Your task to perform on an android device: Open display settings Image 0: 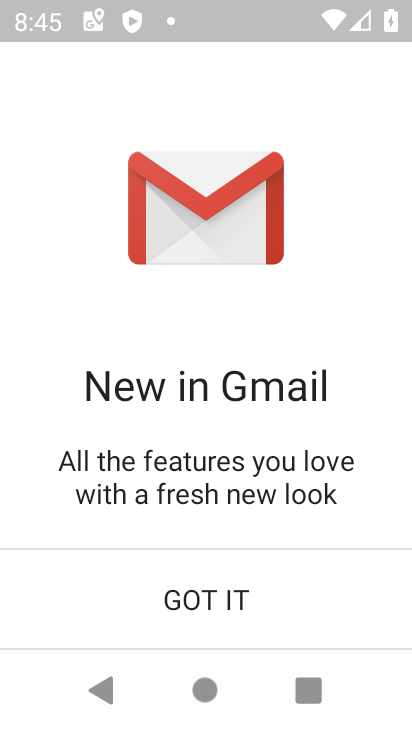
Step 0: click (289, 601)
Your task to perform on an android device: Open display settings Image 1: 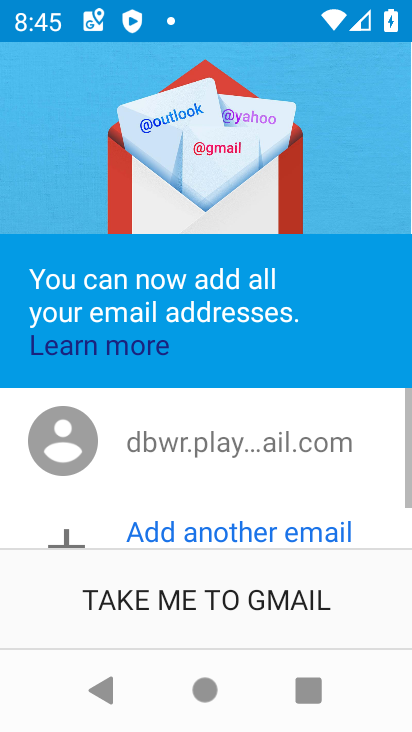
Step 1: click (289, 601)
Your task to perform on an android device: Open display settings Image 2: 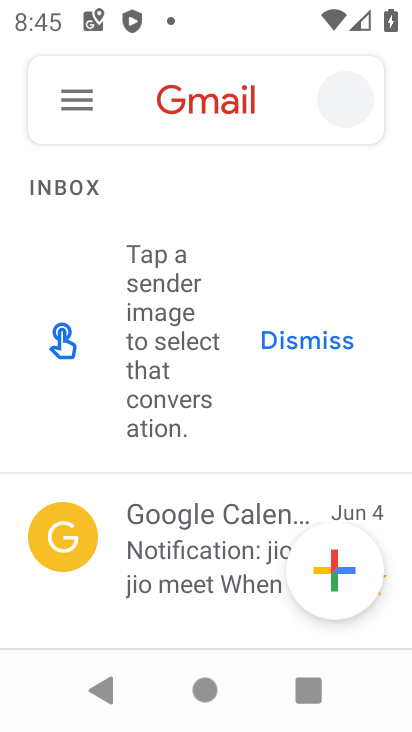
Step 2: click (87, 99)
Your task to perform on an android device: Open display settings Image 3: 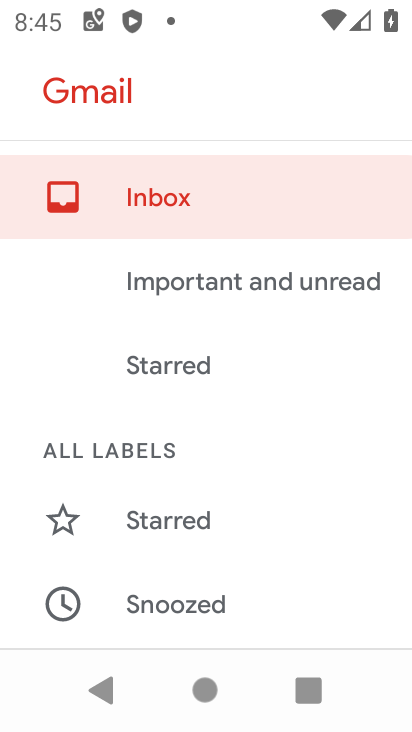
Step 3: press home button
Your task to perform on an android device: Open display settings Image 4: 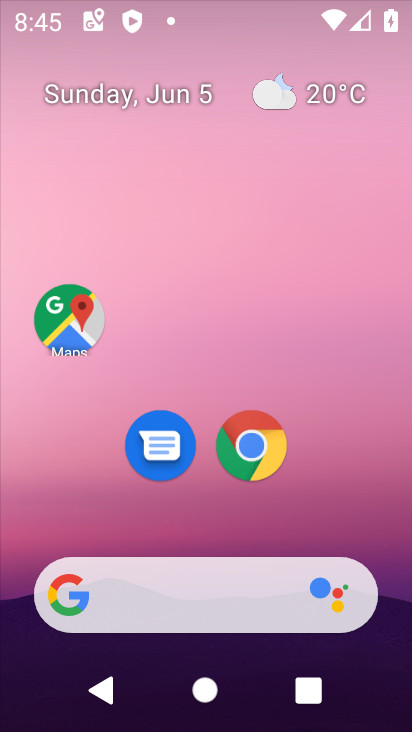
Step 4: drag from (204, 624) to (227, 65)
Your task to perform on an android device: Open display settings Image 5: 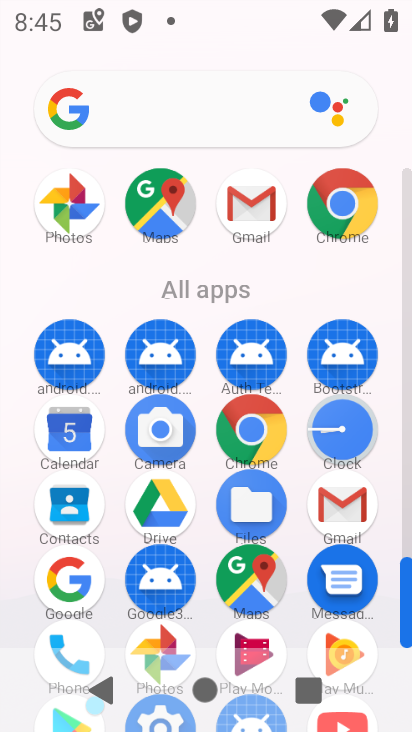
Step 5: drag from (301, 621) to (313, 225)
Your task to perform on an android device: Open display settings Image 6: 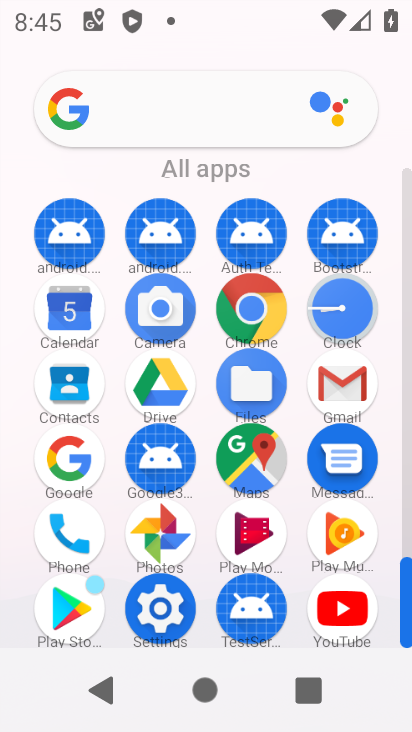
Step 6: click (157, 609)
Your task to perform on an android device: Open display settings Image 7: 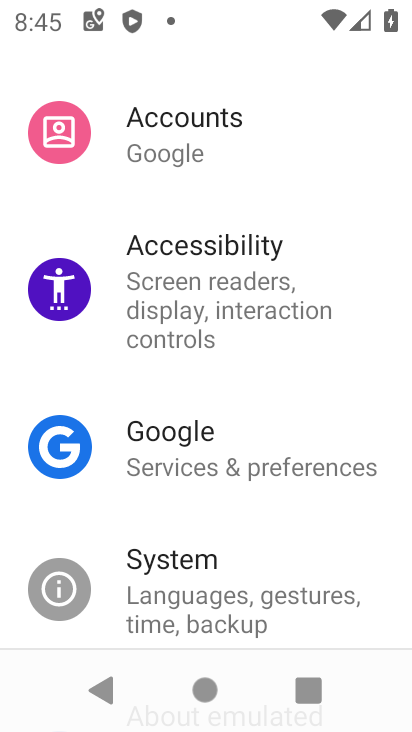
Step 7: drag from (276, 184) to (272, 704)
Your task to perform on an android device: Open display settings Image 8: 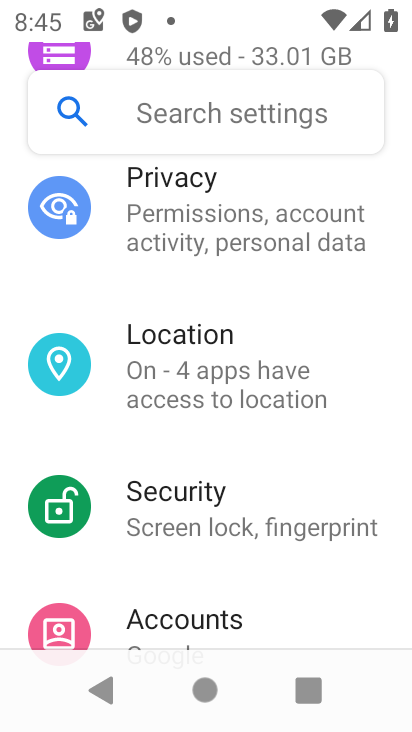
Step 8: drag from (294, 235) to (270, 647)
Your task to perform on an android device: Open display settings Image 9: 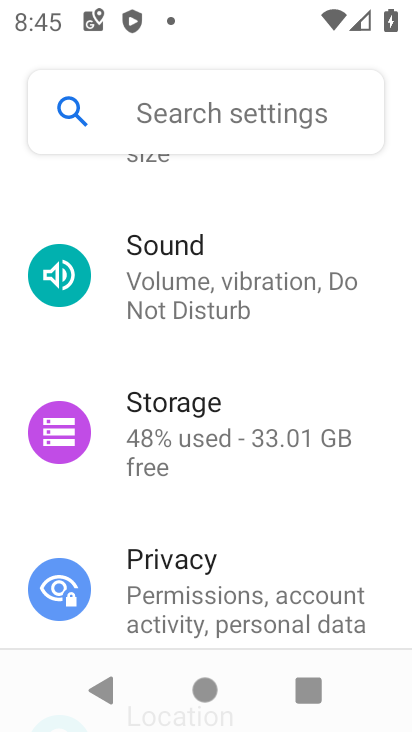
Step 9: drag from (284, 329) to (234, 687)
Your task to perform on an android device: Open display settings Image 10: 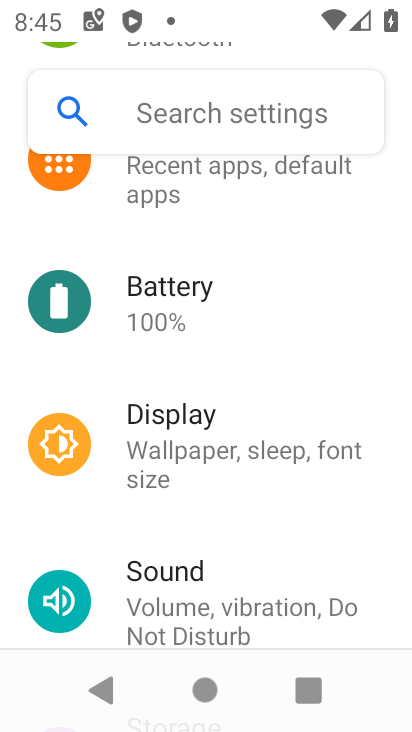
Step 10: click (221, 442)
Your task to perform on an android device: Open display settings Image 11: 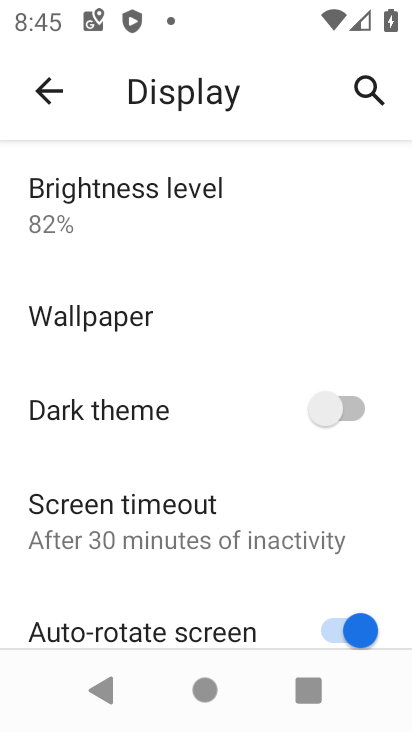
Step 11: press back button
Your task to perform on an android device: Open display settings Image 12: 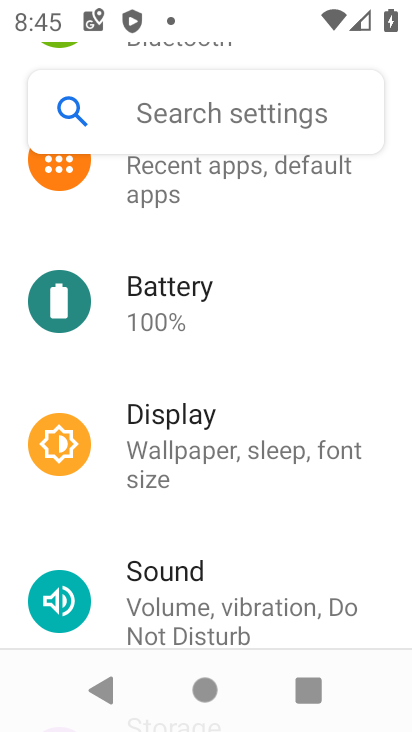
Step 12: click (235, 250)
Your task to perform on an android device: Open display settings Image 13: 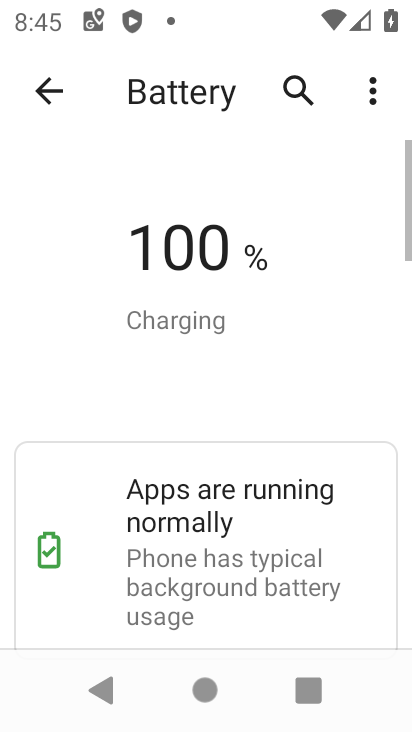
Step 13: task complete